Your task to perform on an android device: What's the weather today? Image 0: 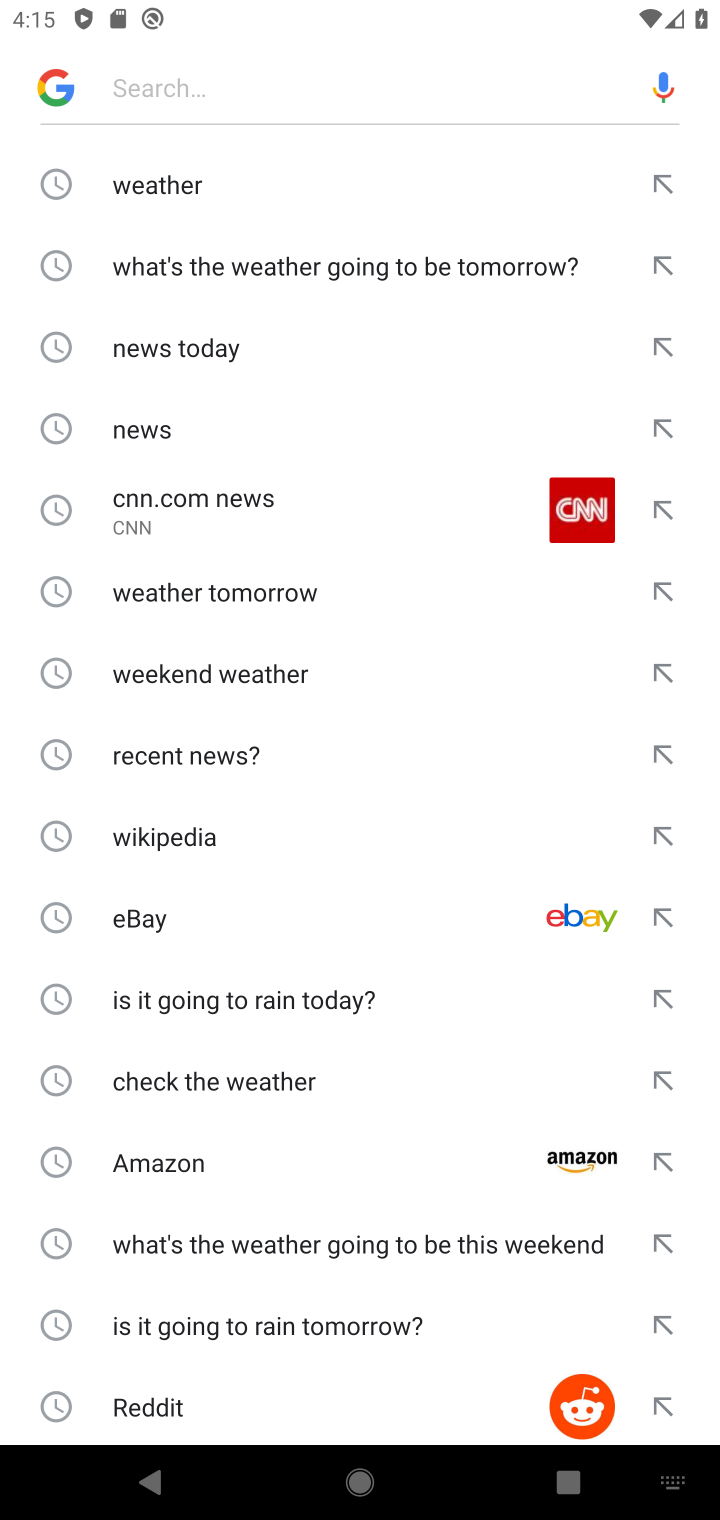
Step 0: click (206, 191)
Your task to perform on an android device: What's the weather today? Image 1: 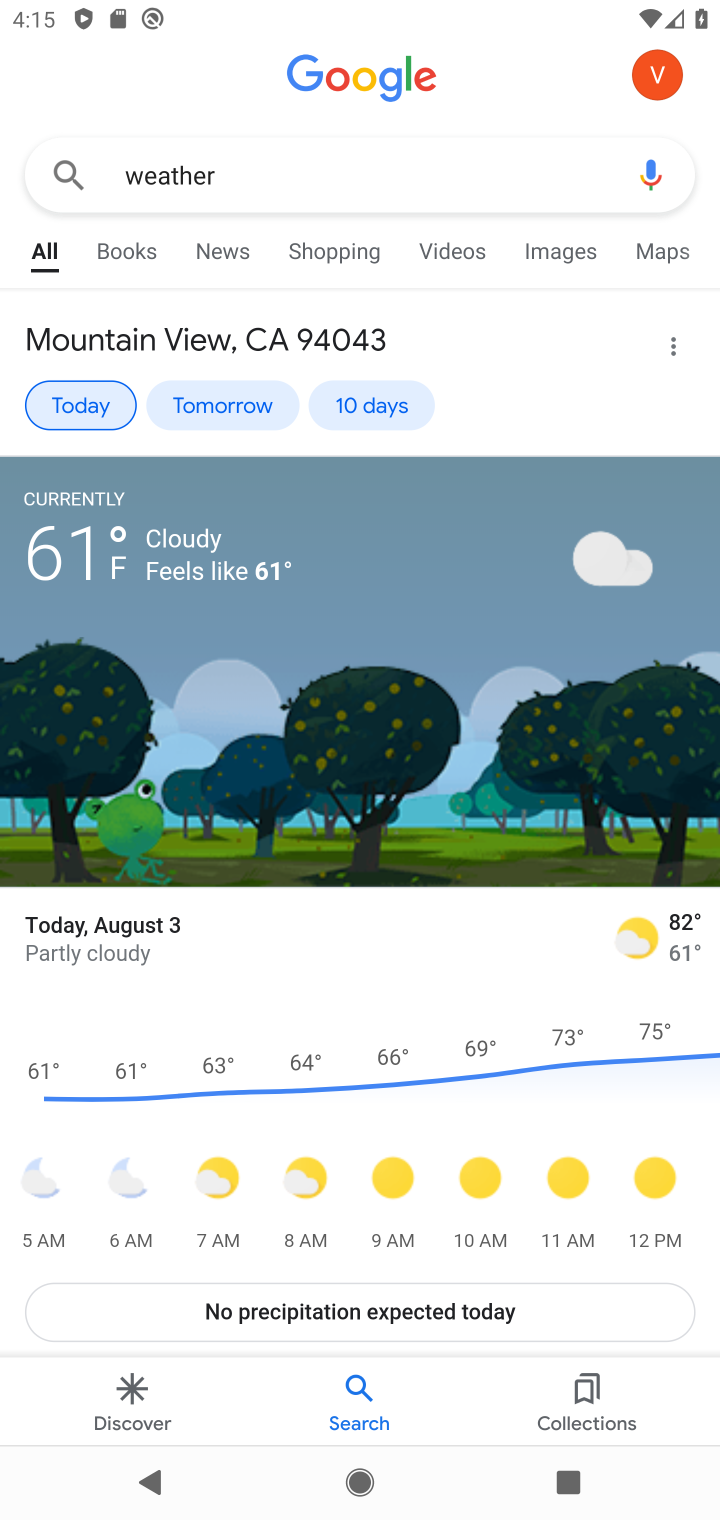
Step 1: task complete